Your task to perform on an android device: add a label to a message in the gmail app Image 0: 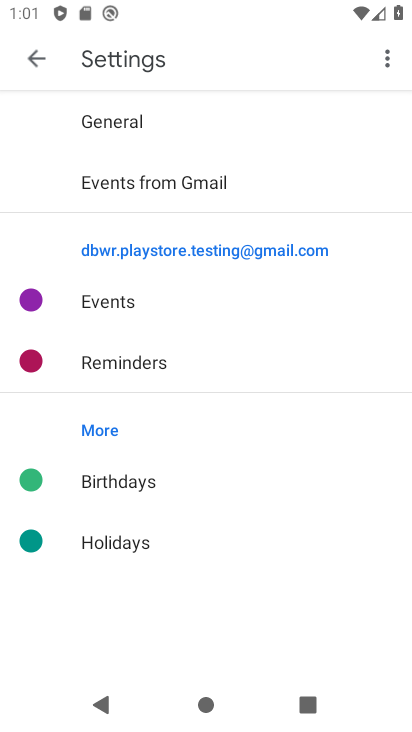
Step 0: press home button
Your task to perform on an android device: add a label to a message in the gmail app Image 1: 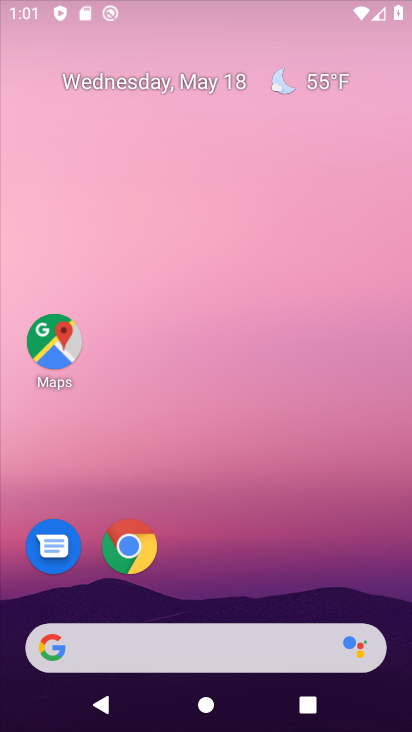
Step 1: drag from (348, 542) to (334, 191)
Your task to perform on an android device: add a label to a message in the gmail app Image 2: 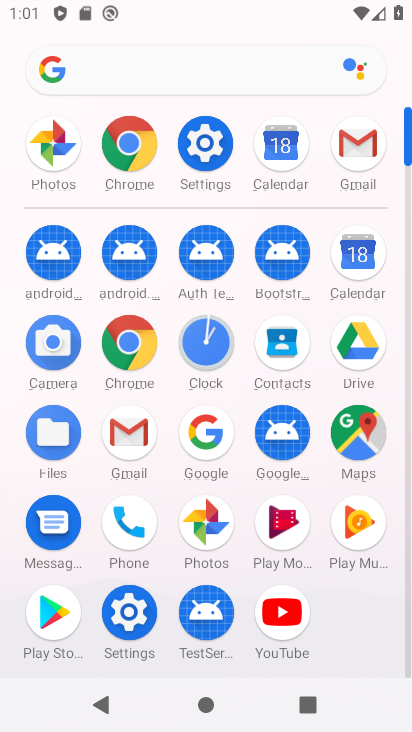
Step 2: click (361, 157)
Your task to perform on an android device: add a label to a message in the gmail app Image 3: 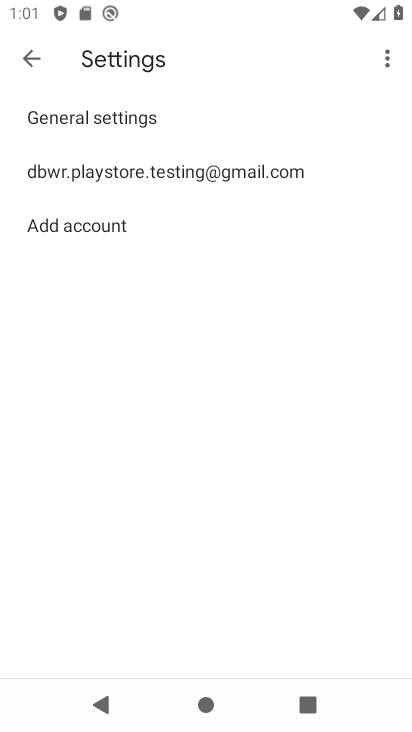
Step 3: click (171, 173)
Your task to perform on an android device: add a label to a message in the gmail app Image 4: 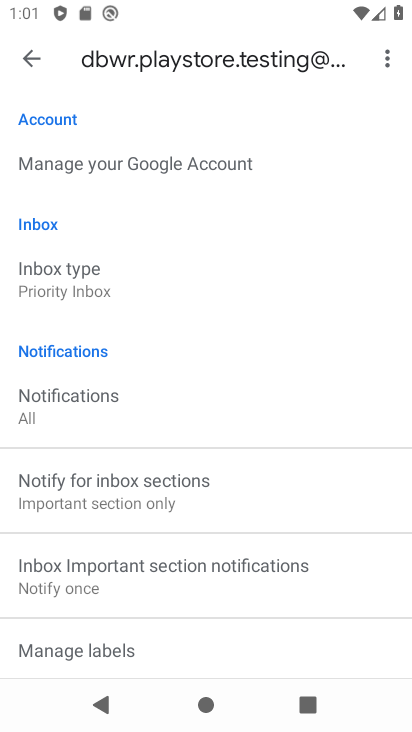
Step 4: click (46, 66)
Your task to perform on an android device: add a label to a message in the gmail app Image 5: 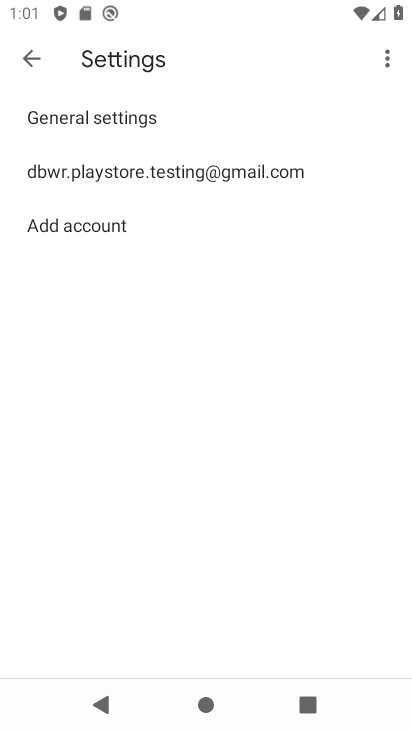
Step 5: click (30, 68)
Your task to perform on an android device: add a label to a message in the gmail app Image 6: 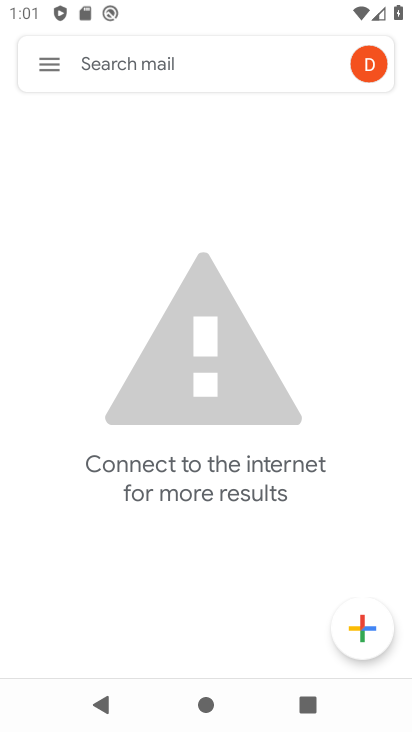
Step 6: click (65, 60)
Your task to perform on an android device: add a label to a message in the gmail app Image 7: 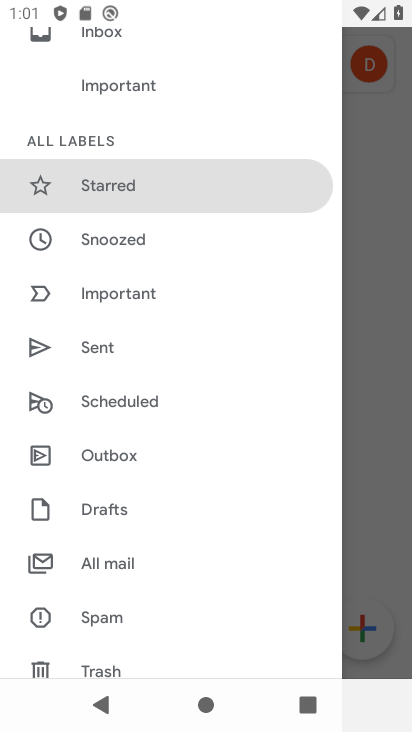
Step 7: click (145, 190)
Your task to perform on an android device: add a label to a message in the gmail app Image 8: 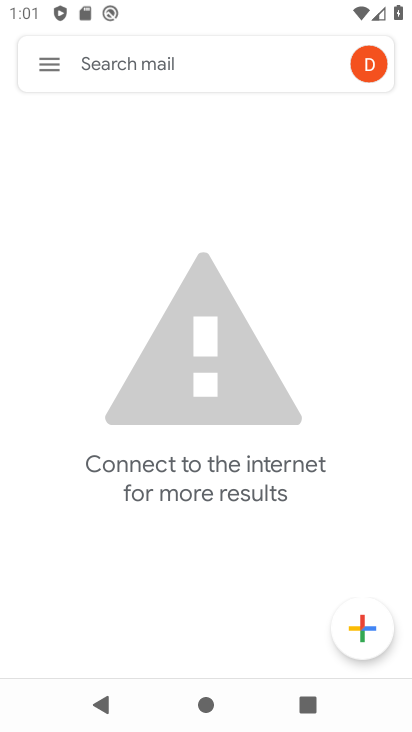
Step 8: task complete